Your task to perform on an android device: Open Maps and search for coffee Image 0: 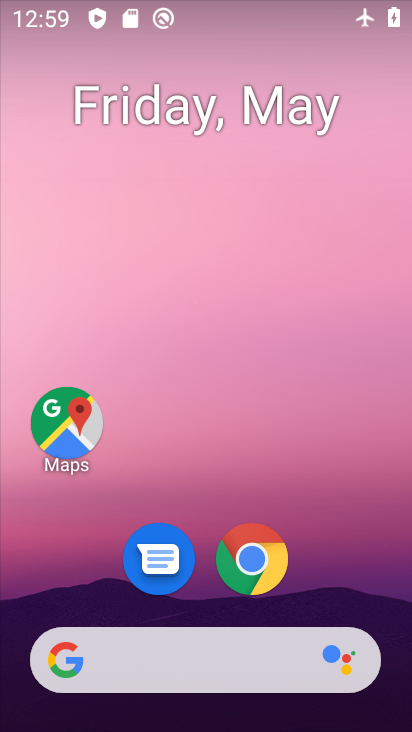
Step 0: click (54, 412)
Your task to perform on an android device: Open Maps and search for coffee Image 1: 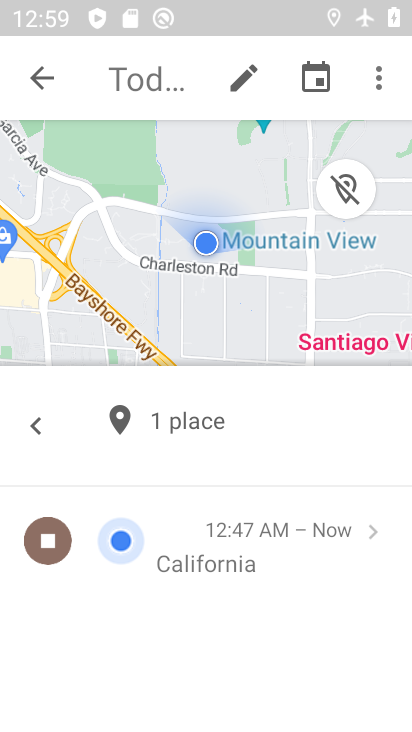
Step 1: click (43, 89)
Your task to perform on an android device: Open Maps and search for coffee Image 2: 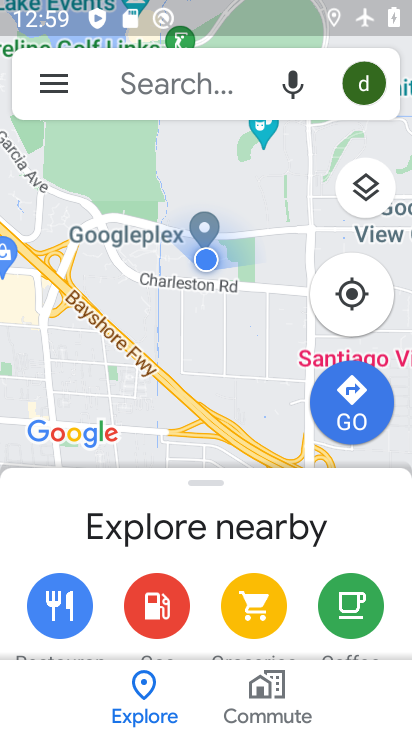
Step 2: click (126, 86)
Your task to perform on an android device: Open Maps and search for coffee Image 3: 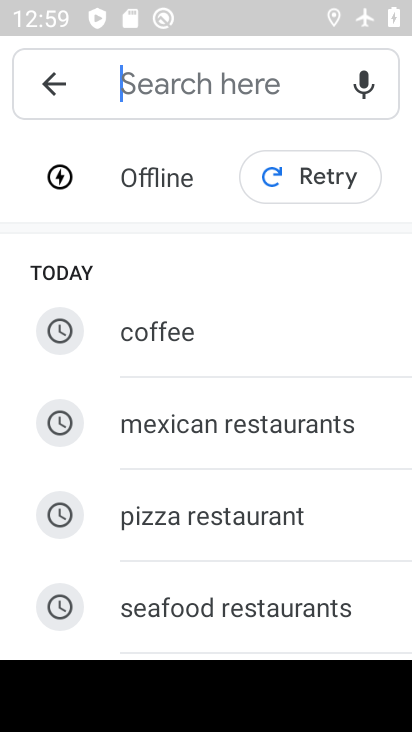
Step 3: click (199, 346)
Your task to perform on an android device: Open Maps and search for coffee Image 4: 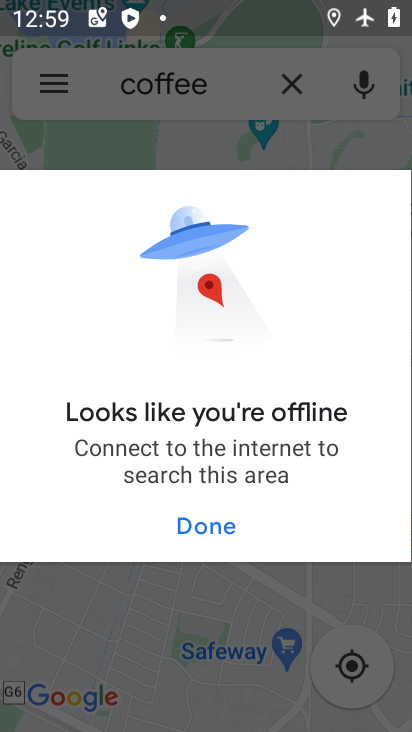
Step 4: task complete